Your task to perform on an android device: Open Chrome and go to settings Image 0: 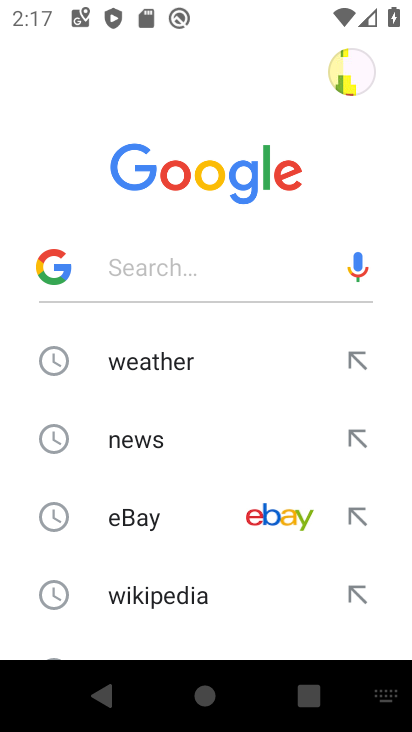
Step 0: press home button
Your task to perform on an android device: Open Chrome and go to settings Image 1: 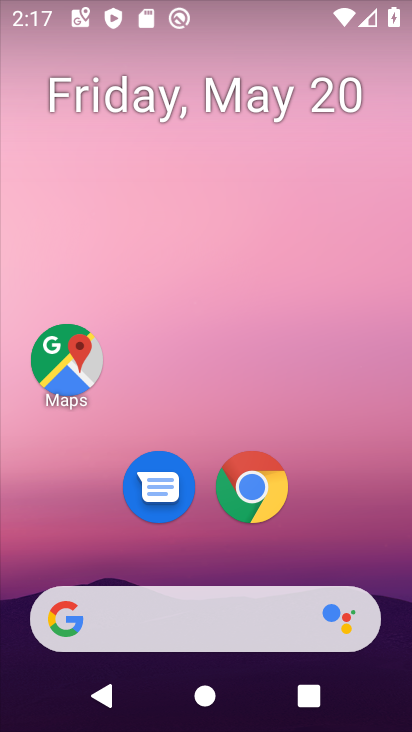
Step 1: drag from (387, 534) to (412, 127)
Your task to perform on an android device: Open Chrome and go to settings Image 2: 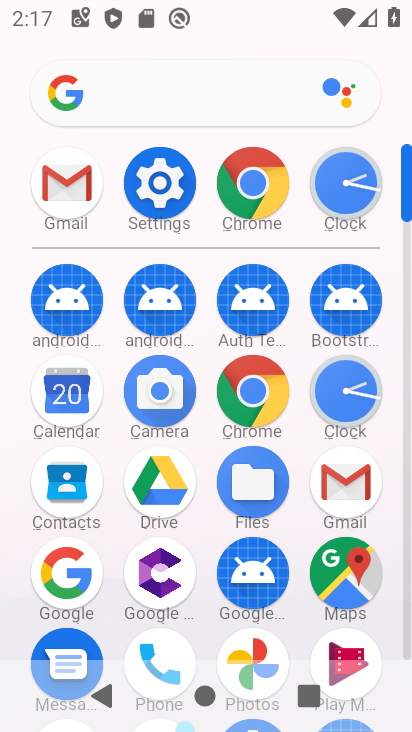
Step 2: click (253, 174)
Your task to perform on an android device: Open Chrome and go to settings Image 3: 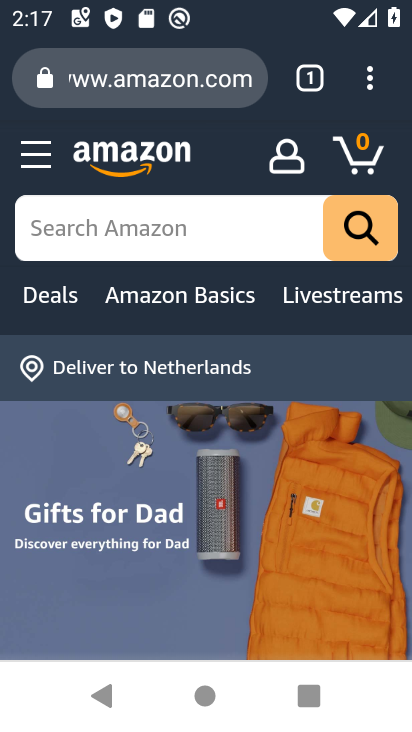
Step 3: task complete